Your task to perform on an android device: Open calendar and show me the second week of next month Image 0: 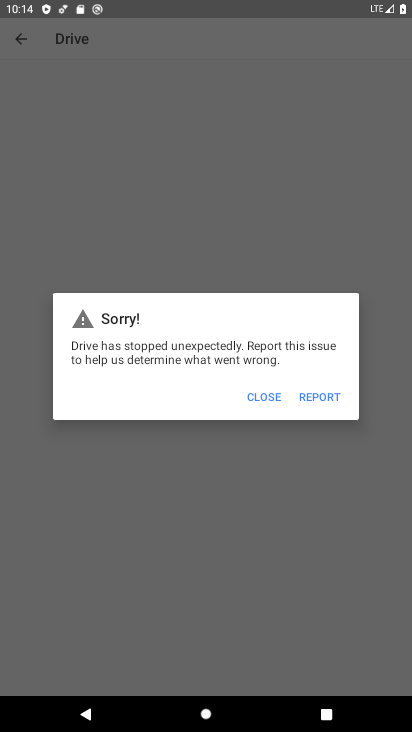
Step 0: press home button
Your task to perform on an android device: Open calendar and show me the second week of next month Image 1: 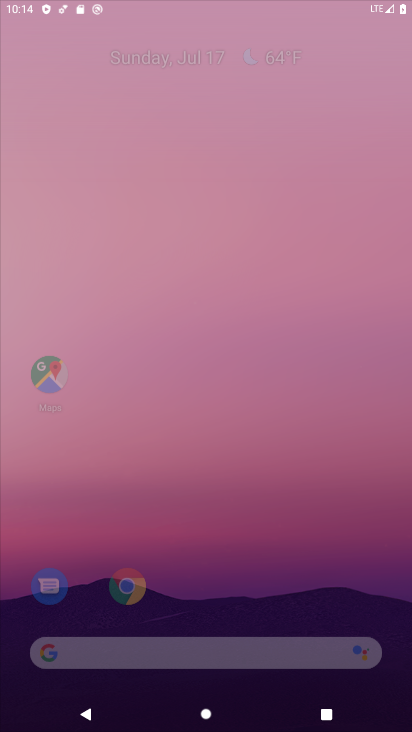
Step 1: drag from (322, 638) to (185, 22)
Your task to perform on an android device: Open calendar and show me the second week of next month Image 2: 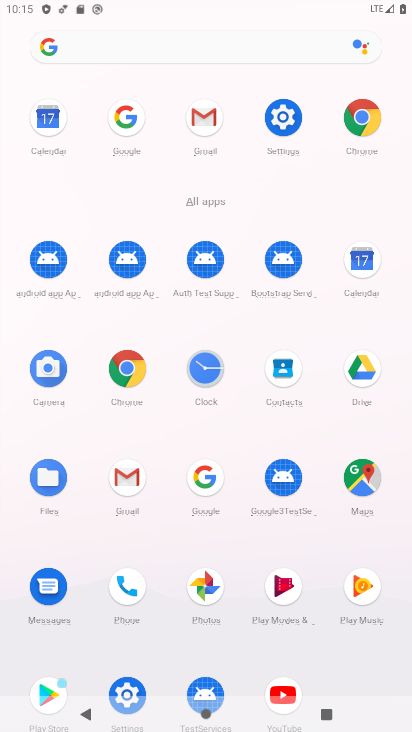
Step 2: click (353, 252)
Your task to perform on an android device: Open calendar and show me the second week of next month Image 3: 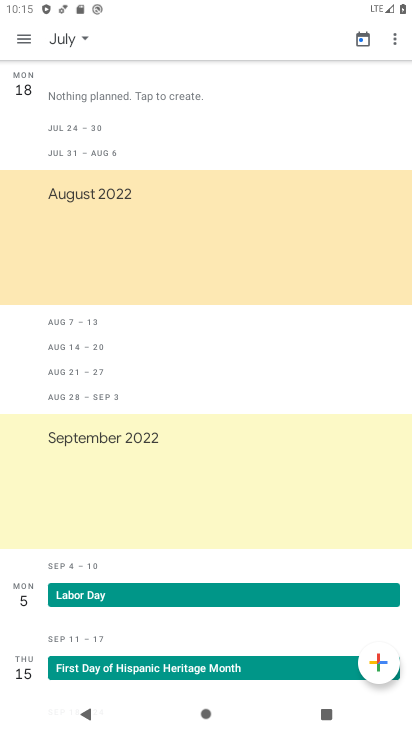
Step 3: click (56, 37)
Your task to perform on an android device: Open calendar and show me the second week of next month Image 4: 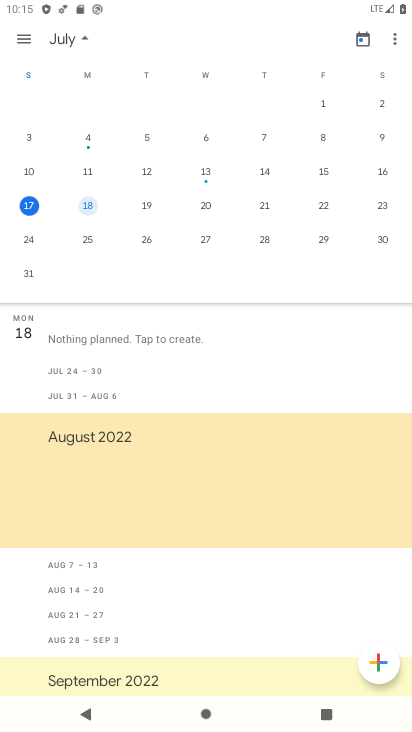
Step 4: drag from (373, 177) to (0, 161)
Your task to perform on an android device: Open calendar and show me the second week of next month Image 5: 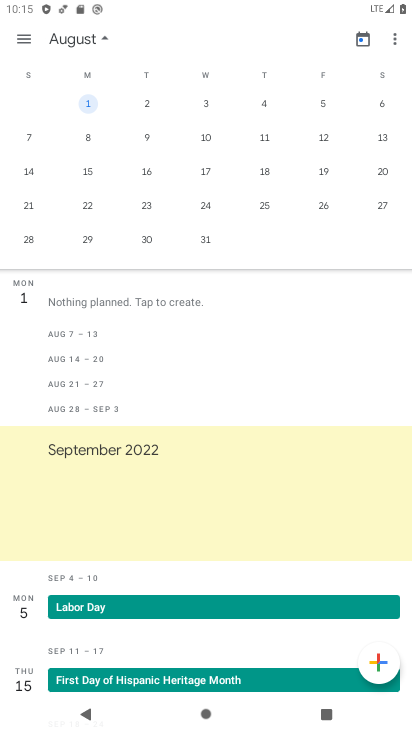
Step 5: click (29, 163)
Your task to perform on an android device: Open calendar and show me the second week of next month Image 6: 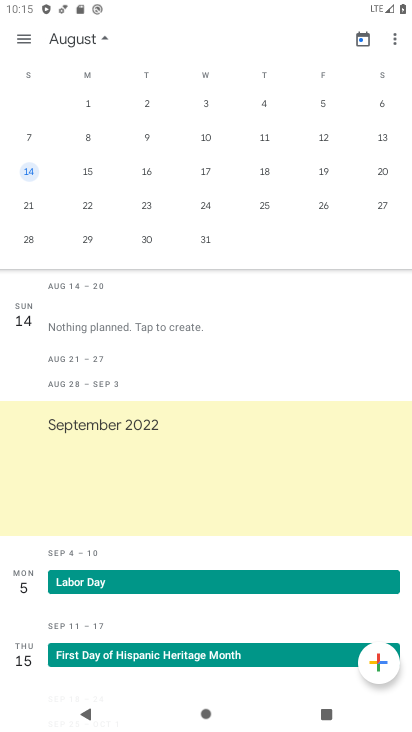
Step 6: task complete